Your task to perform on an android device: Go to internet settings Image 0: 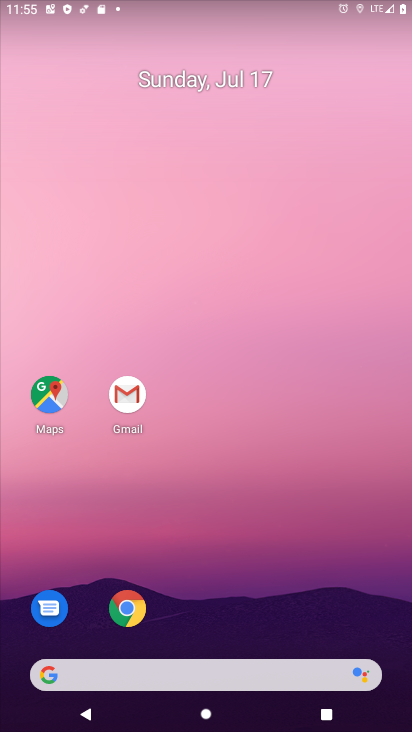
Step 0: drag from (214, 648) to (148, 37)
Your task to perform on an android device: Go to internet settings Image 1: 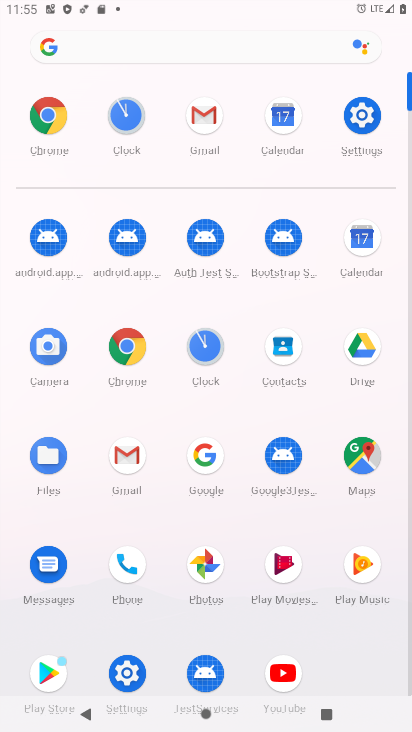
Step 1: click (362, 112)
Your task to perform on an android device: Go to internet settings Image 2: 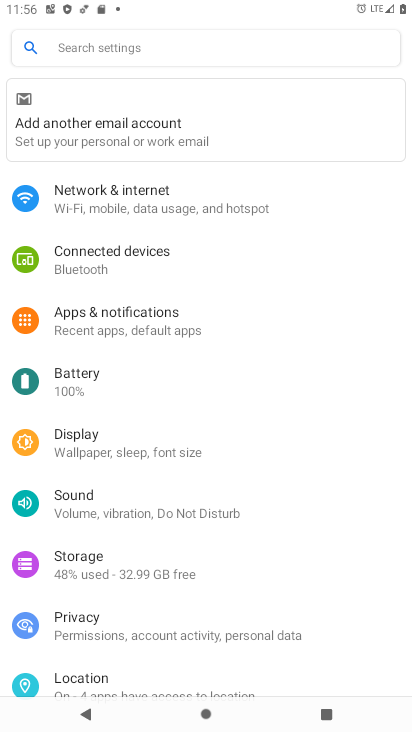
Step 2: click (113, 165)
Your task to perform on an android device: Go to internet settings Image 3: 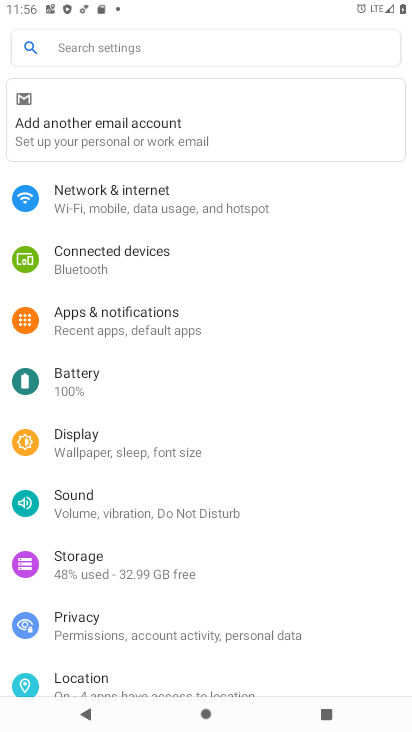
Step 3: click (124, 206)
Your task to perform on an android device: Go to internet settings Image 4: 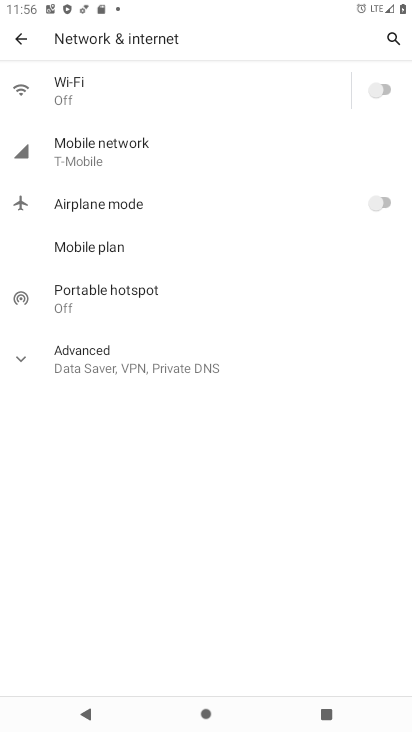
Step 4: click (64, 155)
Your task to perform on an android device: Go to internet settings Image 5: 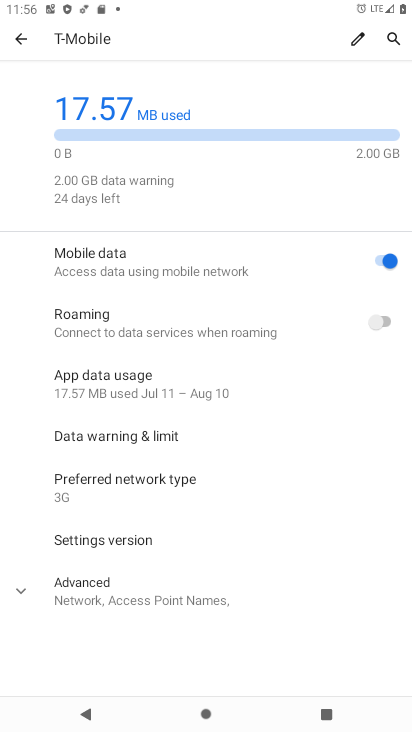
Step 5: task complete